Your task to perform on an android device: Open the stopwatch Image 0: 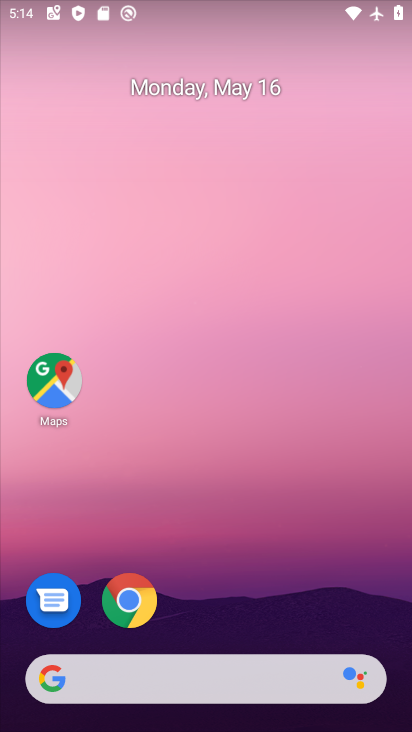
Step 0: drag from (215, 649) to (138, 727)
Your task to perform on an android device: Open the stopwatch Image 1: 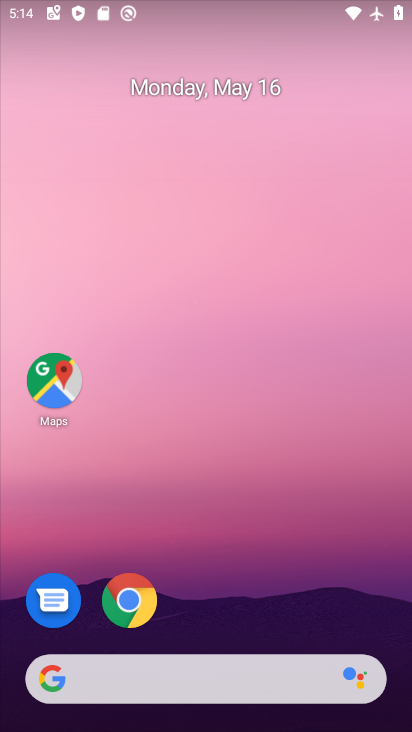
Step 1: click (199, 334)
Your task to perform on an android device: Open the stopwatch Image 2: 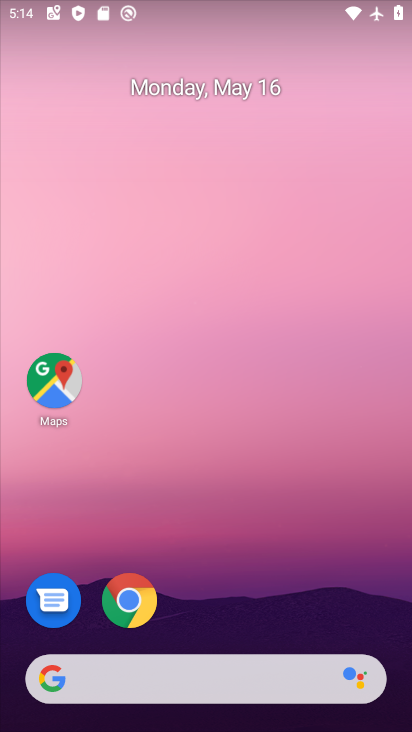
Step 2: drag from (238, 645) to (176, 701)
Your task to perform on an android device: Open the stopwatch Image 3: 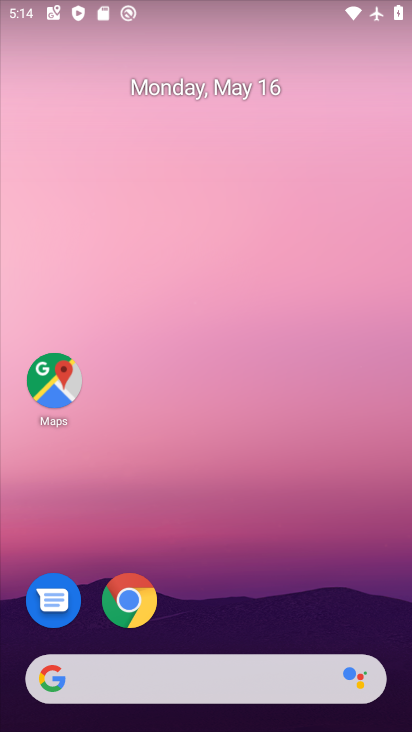
Step 3: drag from (239, 642) to (197, 6)
Your task to perform on an android device: Open the stopwatch Image 4: 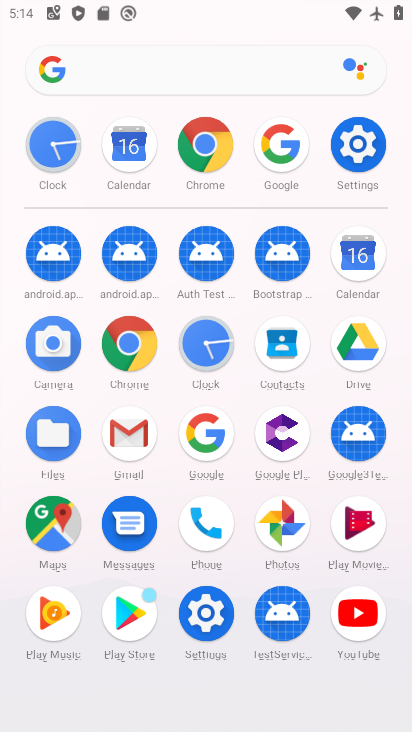
Step 4: click (210, 364)
Your task to perform on an android device: Open the stopwatch Image 5: 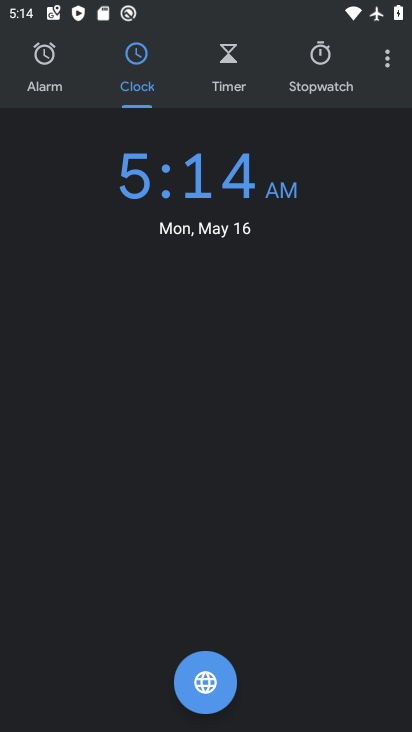
Step 5: click (305, 70)
Your task to perform on an android device: Open the stopwatch Image 6: 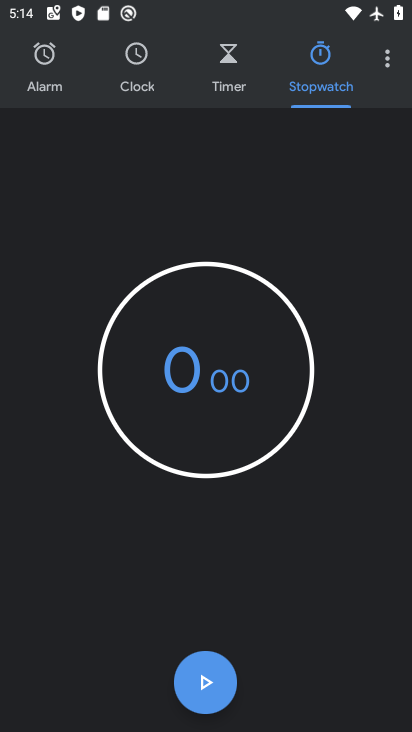
Step 6: task complete